Your task to perform on an android device: open a bookmark in the chrome app Image 0: 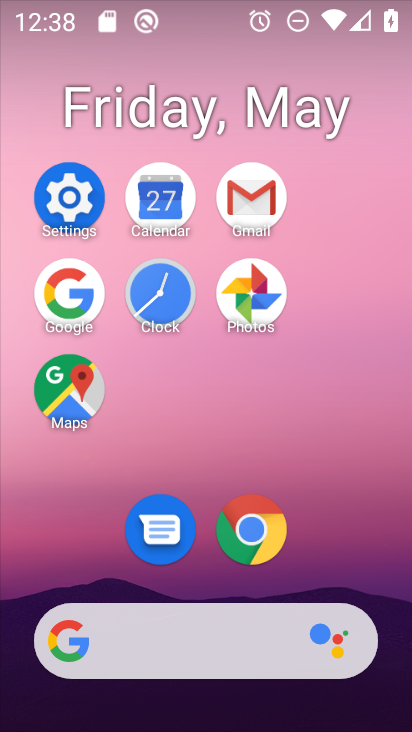
Step 0: click (276, 513)
Your task to perform on an android device: open a bookmark in the chrome app Image 1: 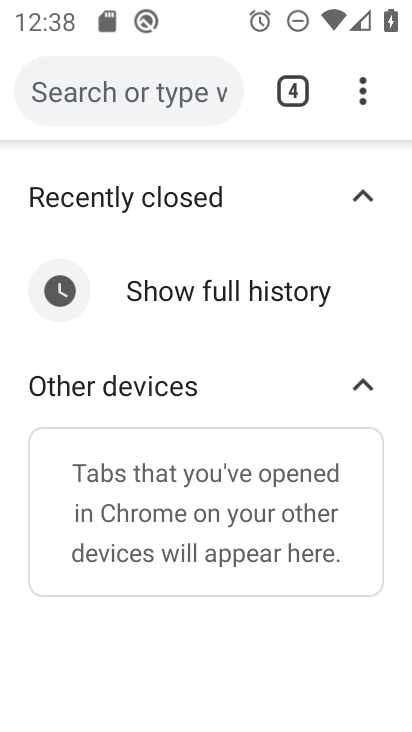
Step 1: click (358, 78)
Your task to perform on an android device: open a bookmark in the chrome app Image 2: 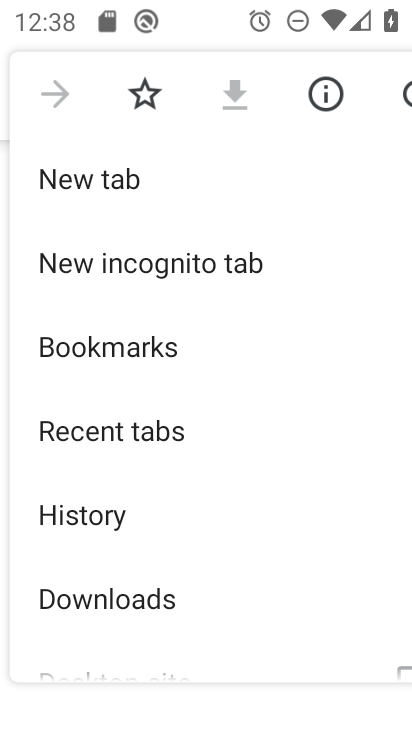
Step 2: click (175, 352)
Your task to perform on an android device: open a bookmark in the chrome app Image 3: 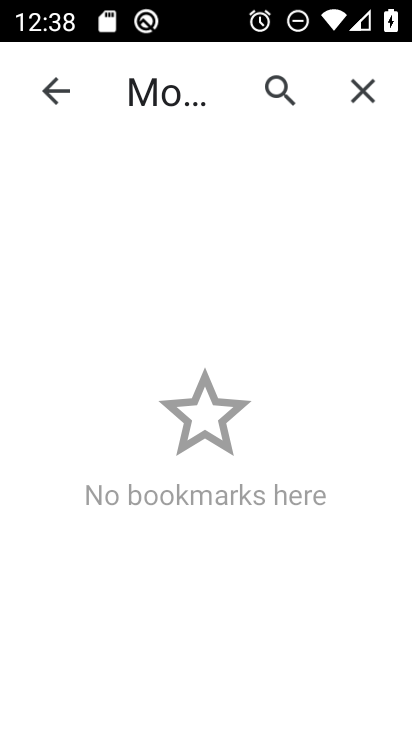
Step 3: task complete